Your task to perform on an android device: Check the weather Image 0: 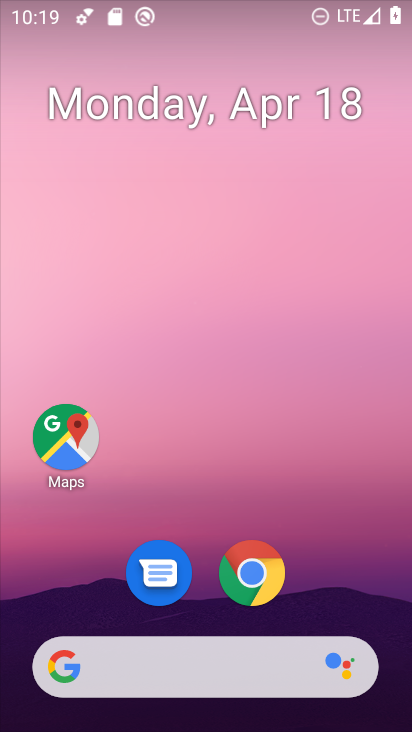
Step 0: drag from (341, 603) to (238, 75)
Your task to perform on an android device: Check the weather Image 1: 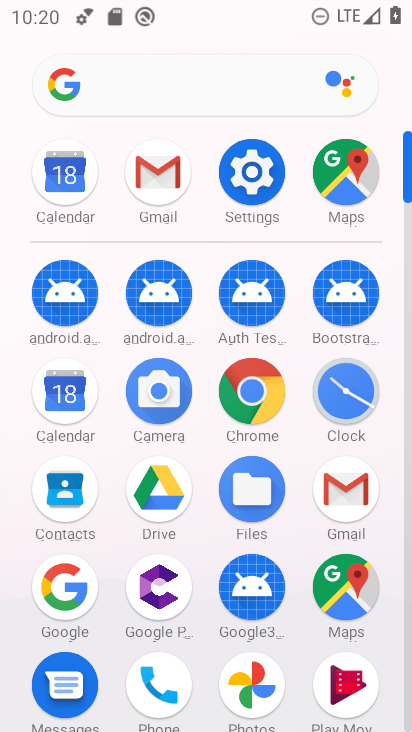
Step 1: task complete